Your task to perform on an android device: Show me productivity apps on the Play Store Image 0: 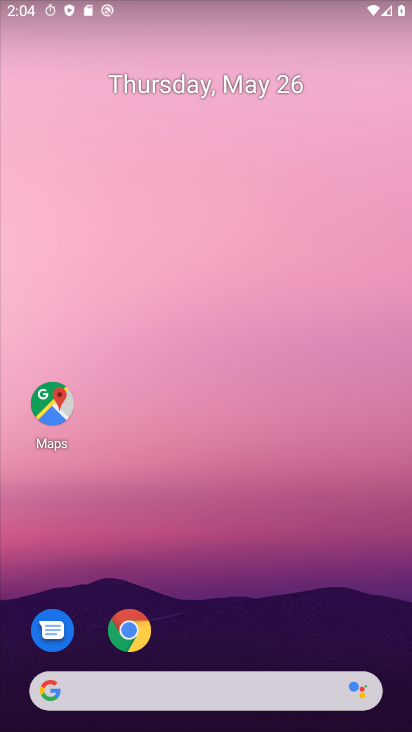
Step 0: drag from (265, 561) to (249, 259)
Your task to perform on an android device: Show me productivity apps on the Play Store Image 1: 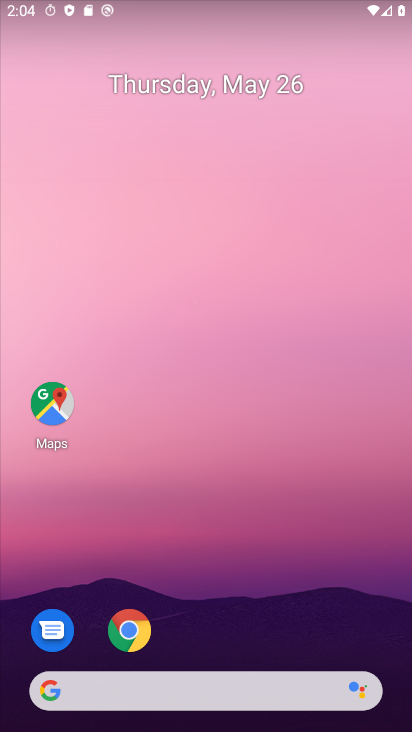
Step 1: drag from (287, 582) to (262, 90)
Your task to perform on an android device: Show me productivity apps on the Play Store Image 2: 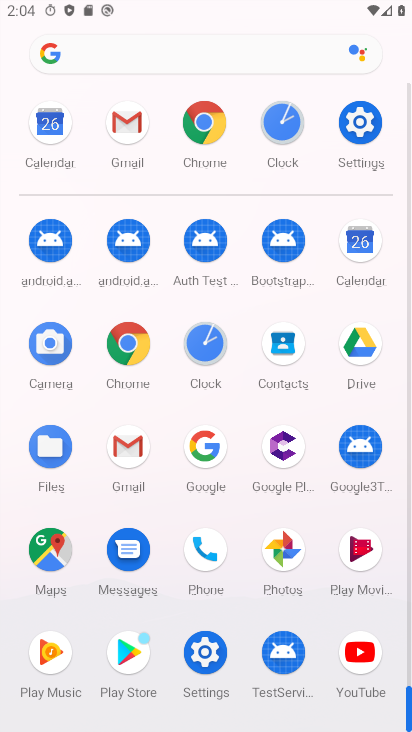
Step 2: click (117, 640)
Your task to perform on an android device: Show me productivity apps on the Play Store Image 3: 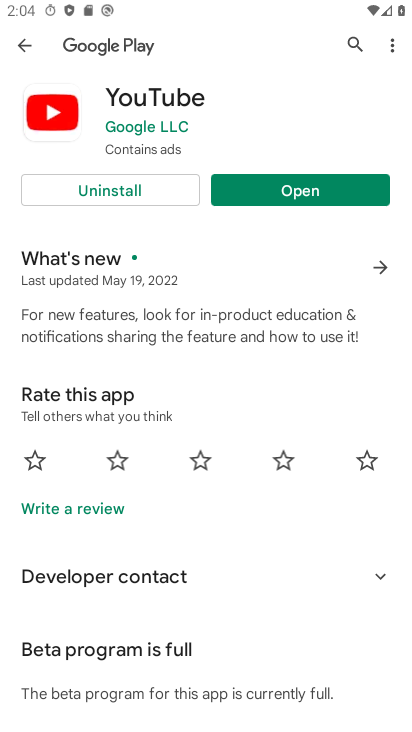
Step 3: click (22, 40)
Your task to perform on an android device: Show me productivity apps on the Play Store Image 4: 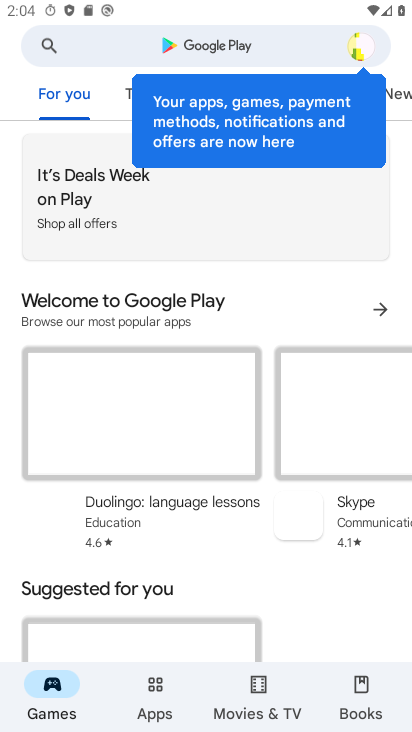
Step 4: click (116, 46)
Your task to perform on an android device: Show me productivity apps on the Play Store Image 5: 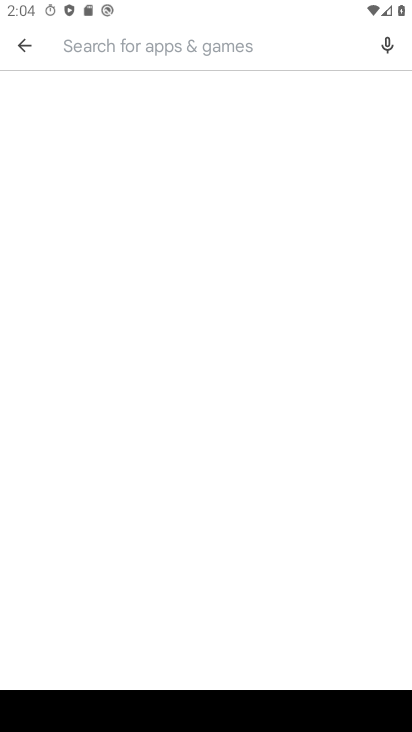
Step 5: type "productivity apps"
Your task to perform on an android device: Show me productivity apps on the Play Store Image 6: 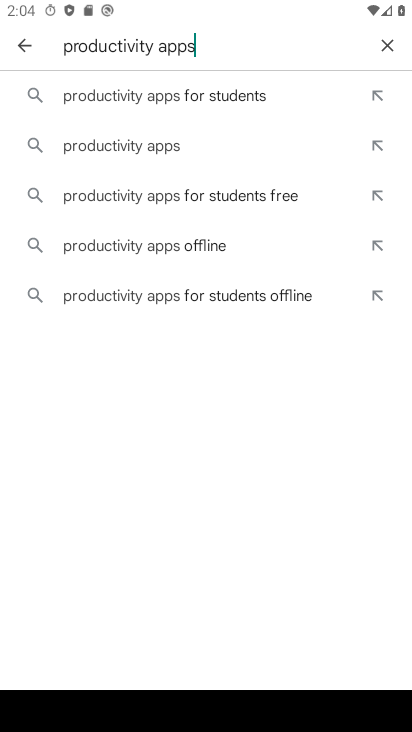
Step 6: click (181, 143)
Your task to perform on an android device: Show me productivity apps on the Play Store Image 7: 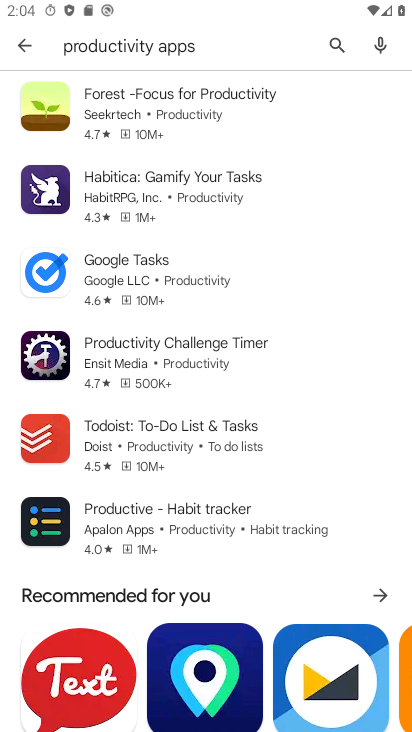
Step 7: task complete